Your task to perform on an android device: Do I have any events tomorrow? Image 0: 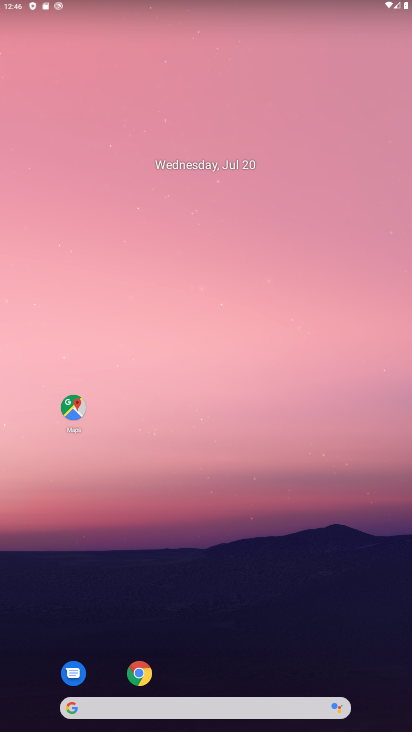
Step 0: click (191, 177)
Your task to perform on an android device: Do I have any events tomorrow? Image 1: 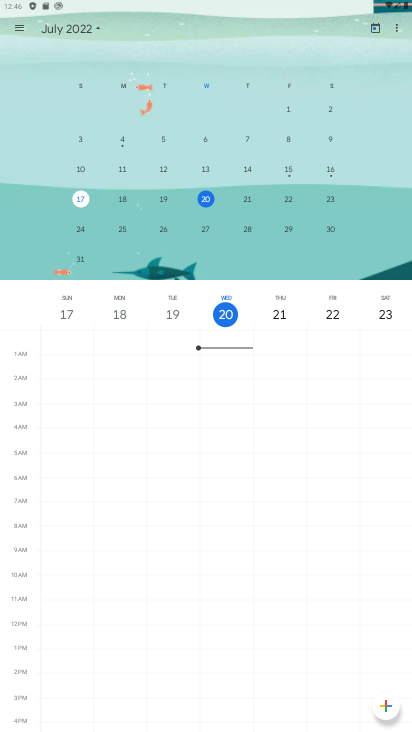
Step 1: click (21, 38)
Your task to perform on an android device: Do I have any events tomorrow? Image 2: 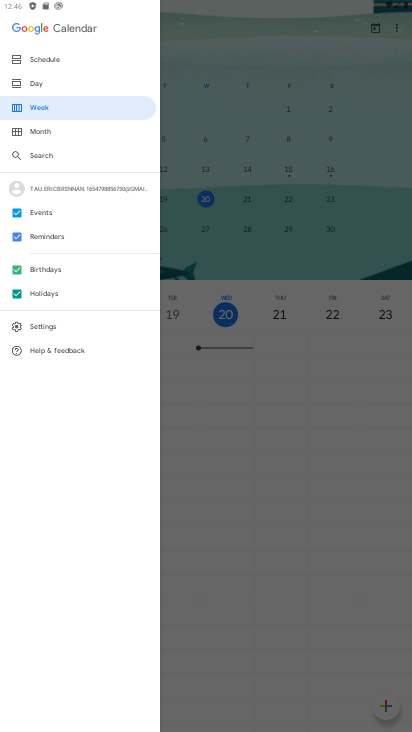
Step 2: click (19, 240)
Your task to perform on an android device: Do I have any events tomorrow? Image 3: 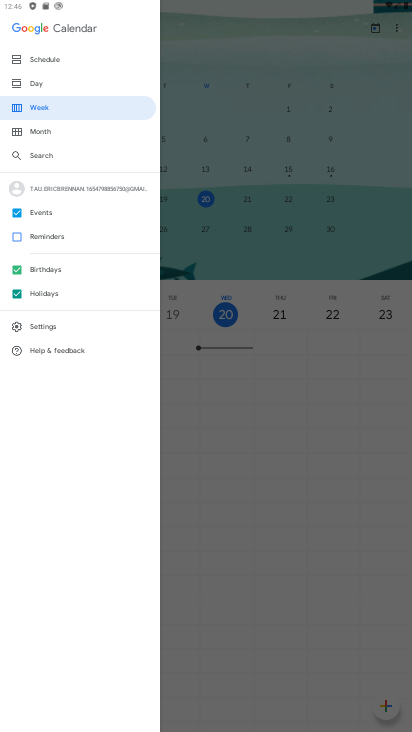
Step 3: click (13, 266)
Your task to perform on an android device: Do I have any events tomorrow? Image 4: 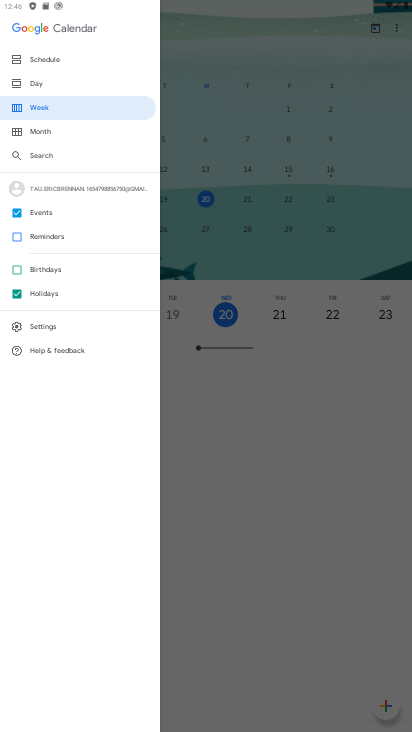
Step 4: click (16, 294)
Your task to perform on an android device: Do I have any events tomorrow? Image 5: 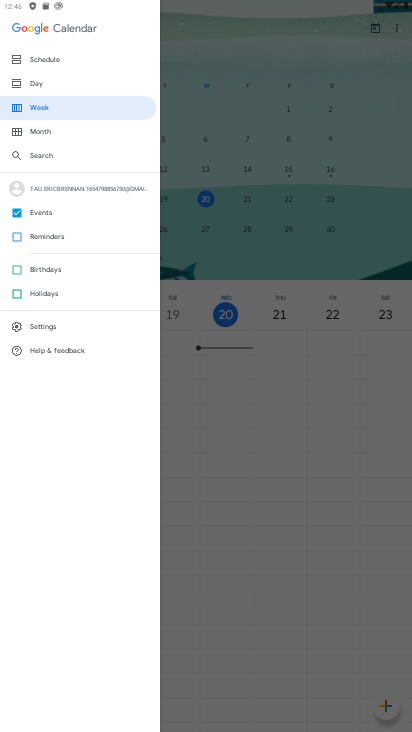
Step 5: click (66, 91)
Your task to perform on an android device: Do I have any events tomorrow? Image 6: 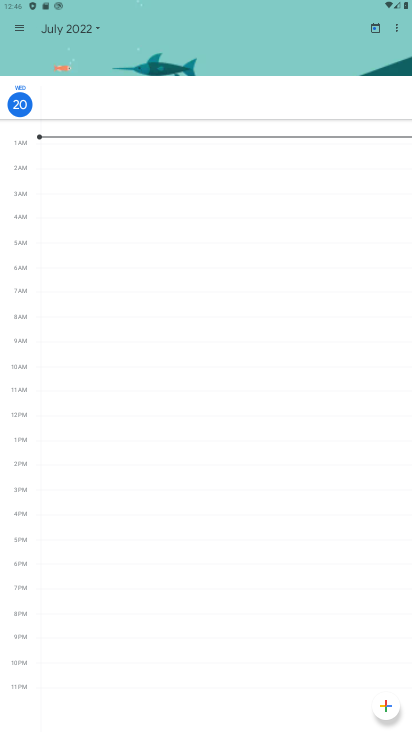
Step 6: task complete